Your task to perform on an android device: Show me productivity apps on the Play Store Image 0: 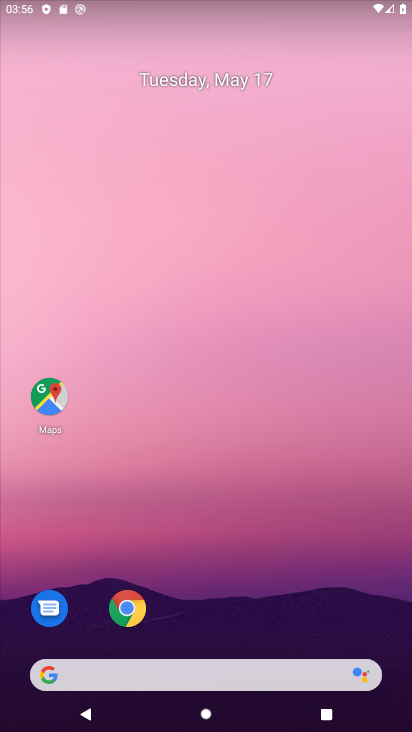
Step 0: drag from (246, 618) to (318, 114)
Your task to perform on an android device: Show me productivity apps on the Play Store Image 1: 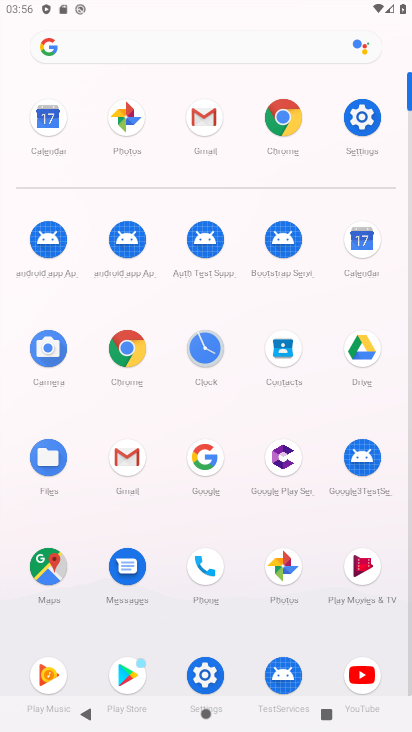
Step 1: click (121, 684)
Your task to perform on an android device: Show me productivity apps on the Play Store Image 2: 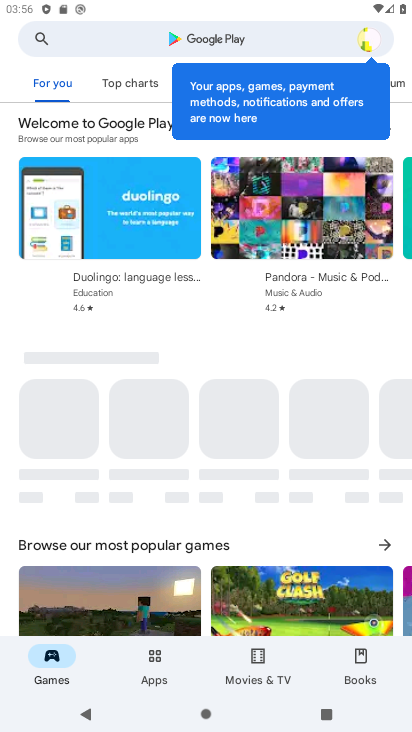
Step 2: click (147, 665)
Your task to perform on an android device: Show me productivity apps on the Play Store Image 3: 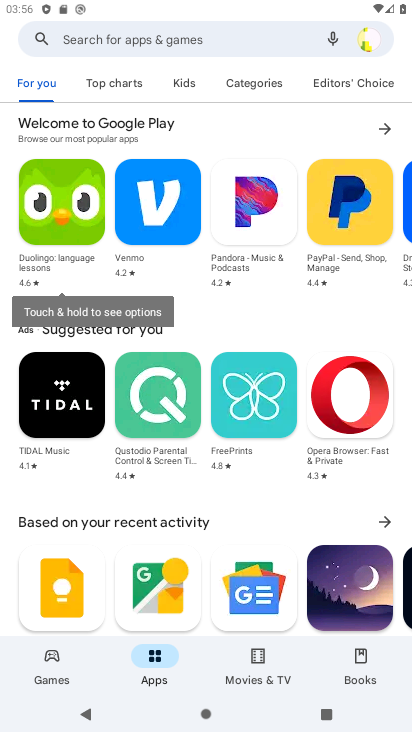
Step 3: task complete